Your task to perform on an android device: Open Google Chrome and click the shortcut for Amazon.com Image 0: 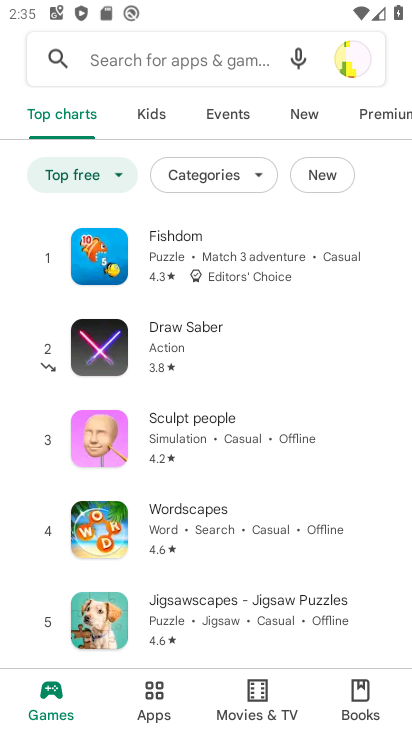
Step 0: press home button
Your task to perform on an android device: Open Google Chrome and click the shortcut for Amazon.com Image 1: 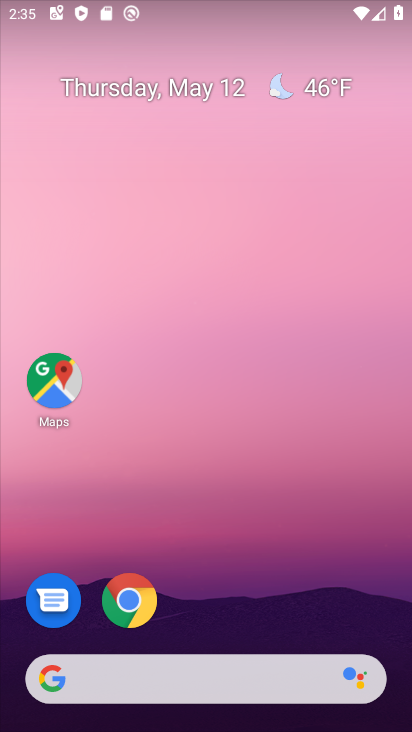
Step 1: click (127, 604)
Your task to perform on an android device: Open Google Chrome and click the shortcut for Amazon.com Image 2: 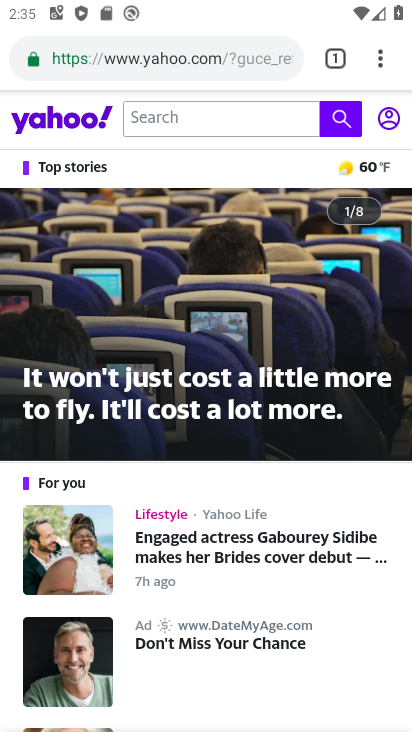
Step 2: click (383, 70)
Your task to perform on an android device: Open Google Chrome and click the shortcut for Amazon.com Image 3: 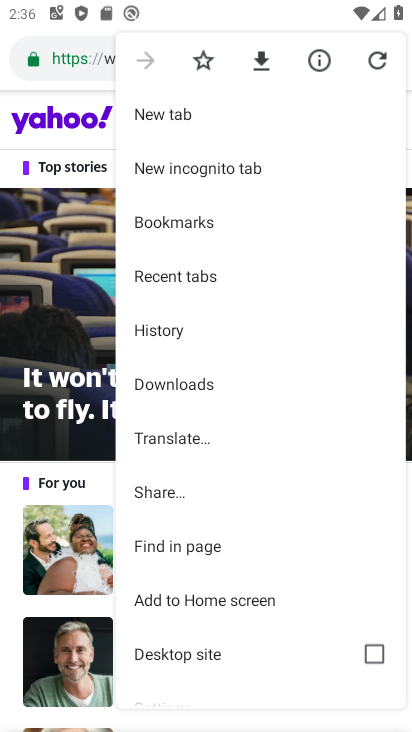
Step 3: click (185, 122)
Your task to perform on an android device: Open Google Chrome and click the shortcut for Amazon.com Image 4: 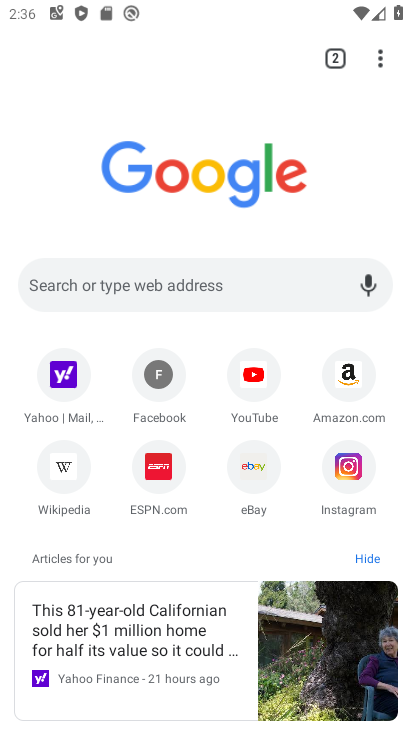
Step 4: click (336, 380)
Your task to perform on an android device: Open Google Chrome and click the shortcut for Amazon.com Image 5: 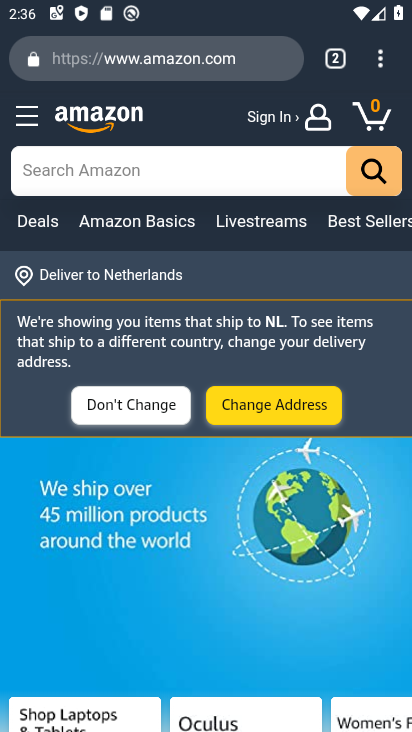
Step 5: task complete